Your task to perform on an android device: Search for flights from Sydney to Helsinki Image 0: 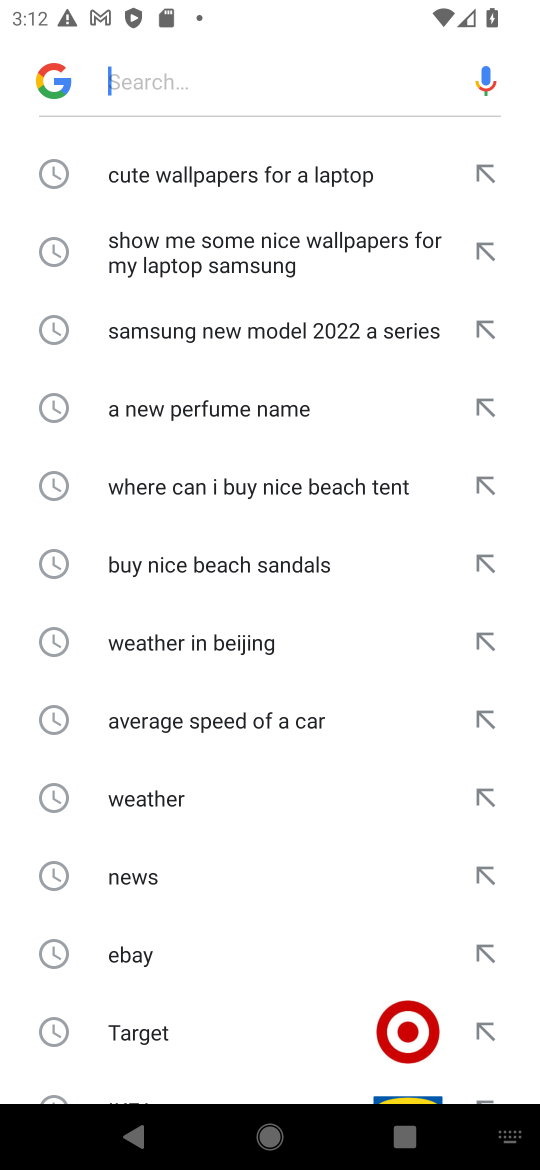
Step 0: click (323, 66)
Your task to perform on an android device: Search for flights from Sydney to Helsinki Image 1: 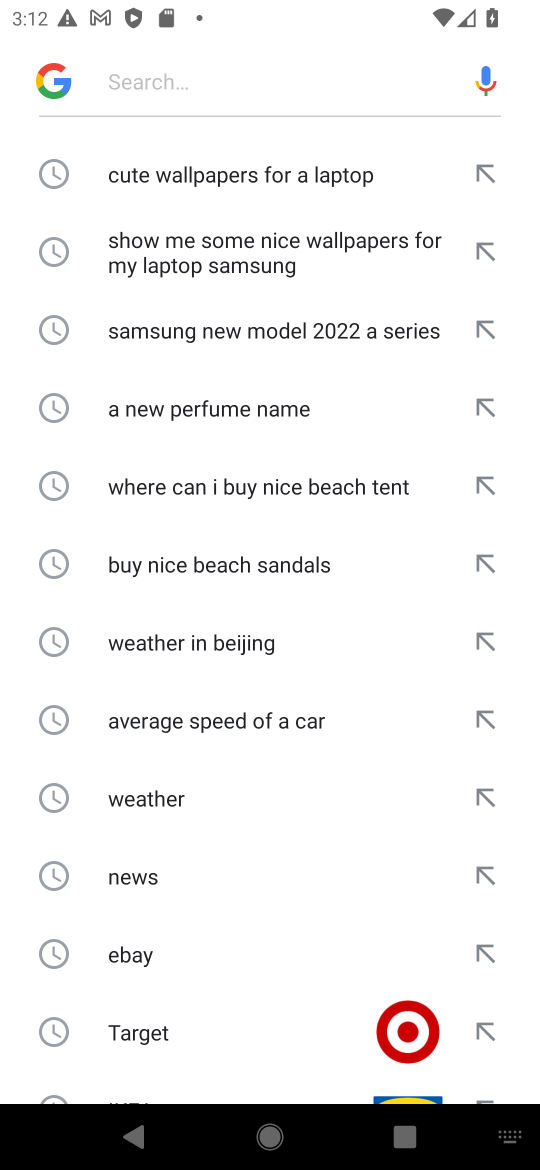
Step 1: type "Search for flights from Sydney to Helsinki "
Your task to perform on an android device: Search for flights from Sydney to Helsinki Image 2: 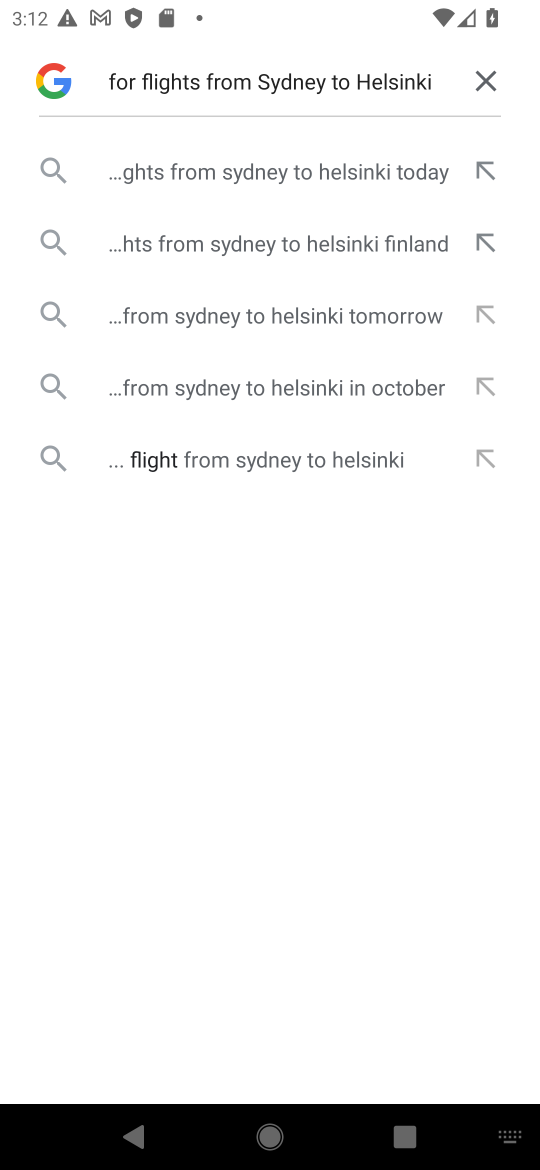
Step 2: click (192, 160)
Your task to perform on an android device: Search for flights from Sydney to Helsinki Image 3: 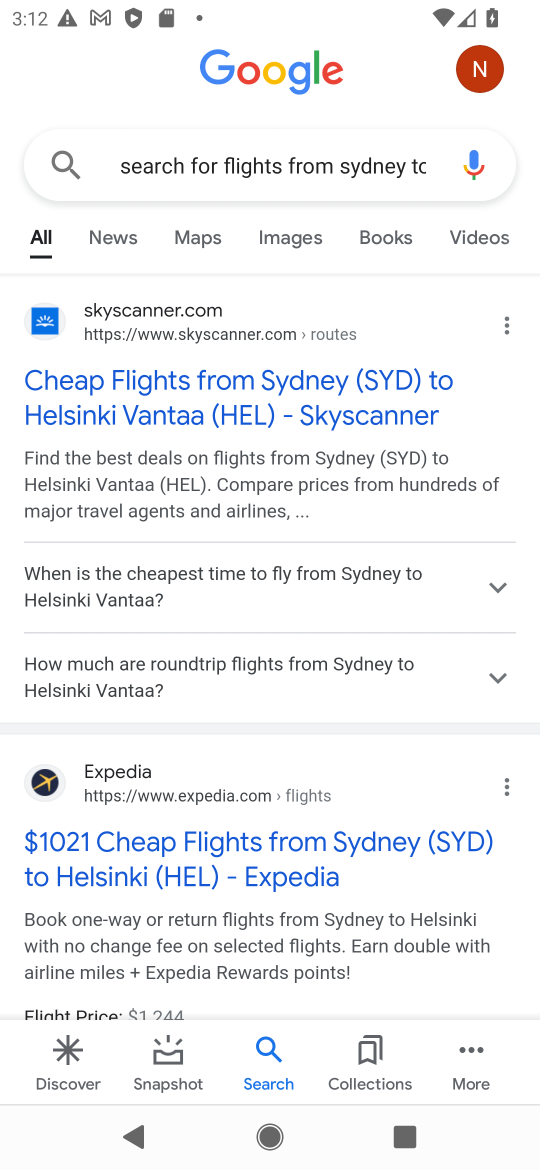
Step 3: click (290, 369)
Your task to perform on an android device: Search for flights from Sydney to Helsinki Image 4: 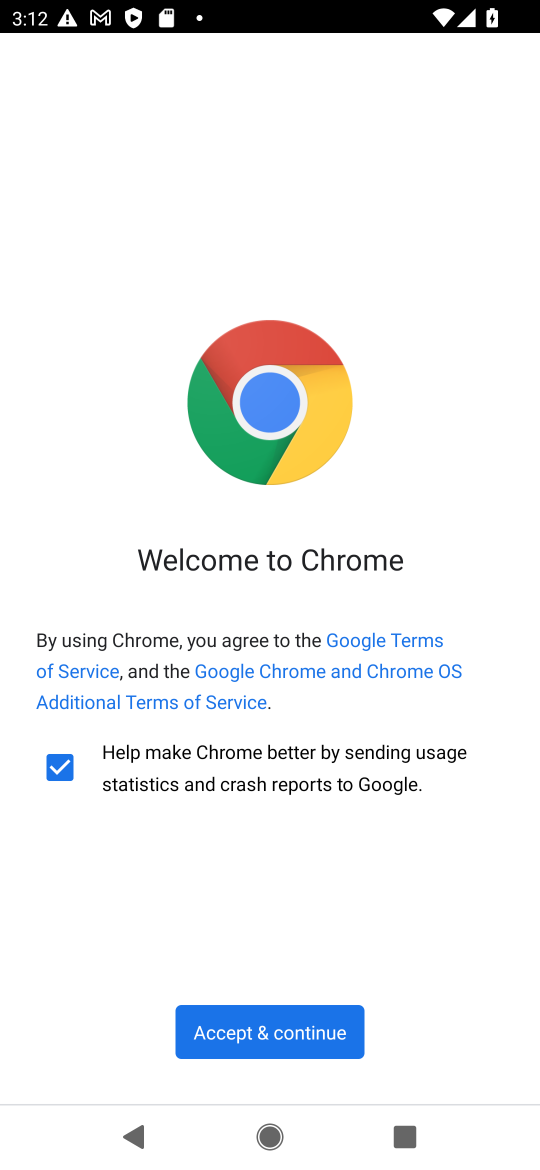
Step 4: click (348, 1016)
Your task to perform on an android device: Search for flights from Sydney to Helsinki Image 5: 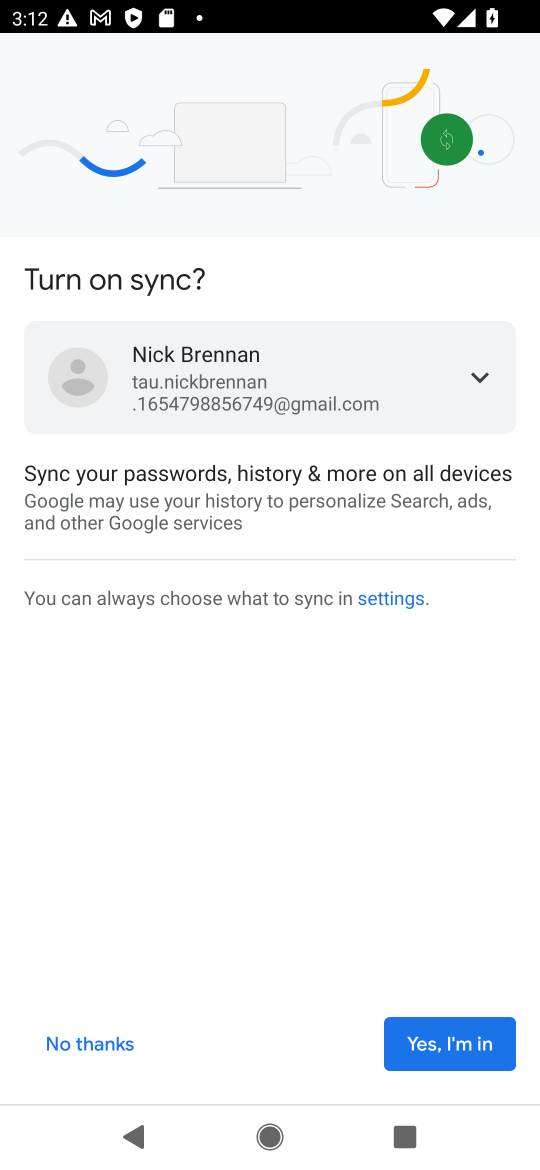
Step 5: click (53, 1036)
Your task to perform on an android device: Search for flights from Sydney to Helsinki Image 6: 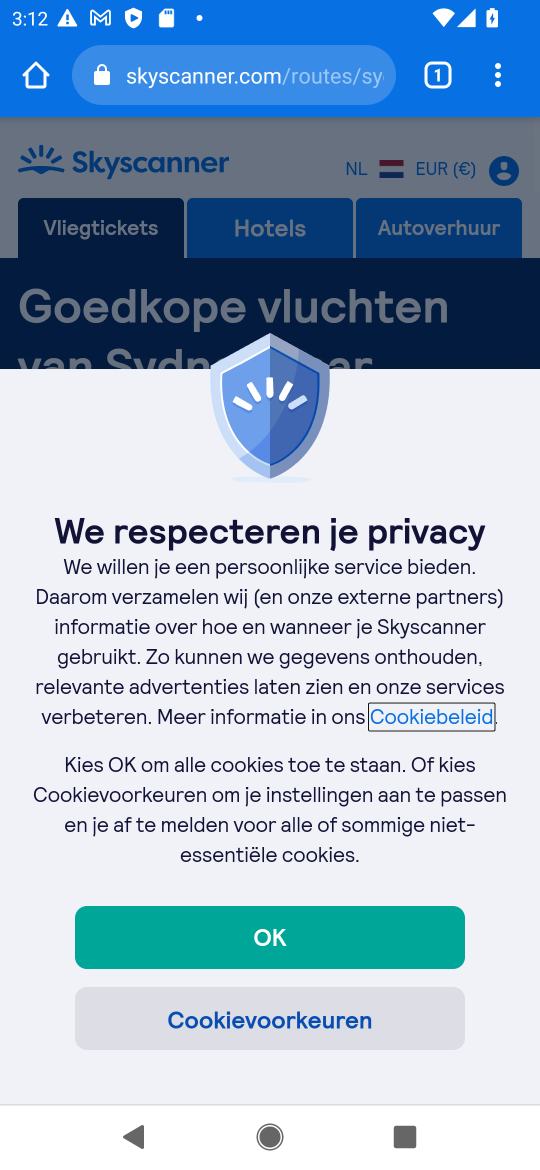
Step 6: click (303, 931)
Your task to perform on an android device: Search for flights from Sydney to Helsinki Image 7: 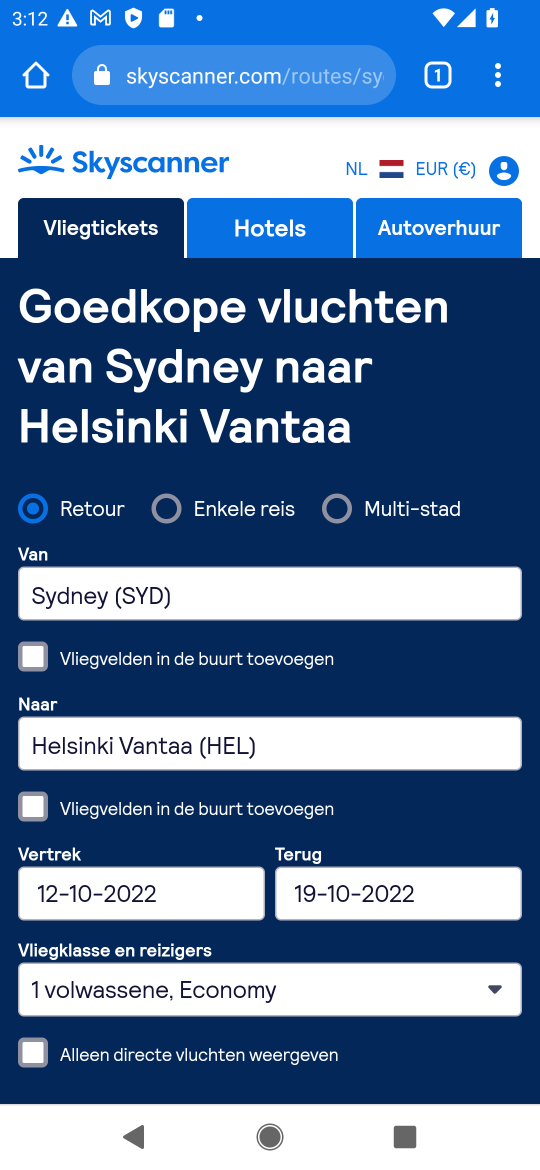
Step 7: task complete